Your task to perform on an android device: Open accessibility settings Image 0: 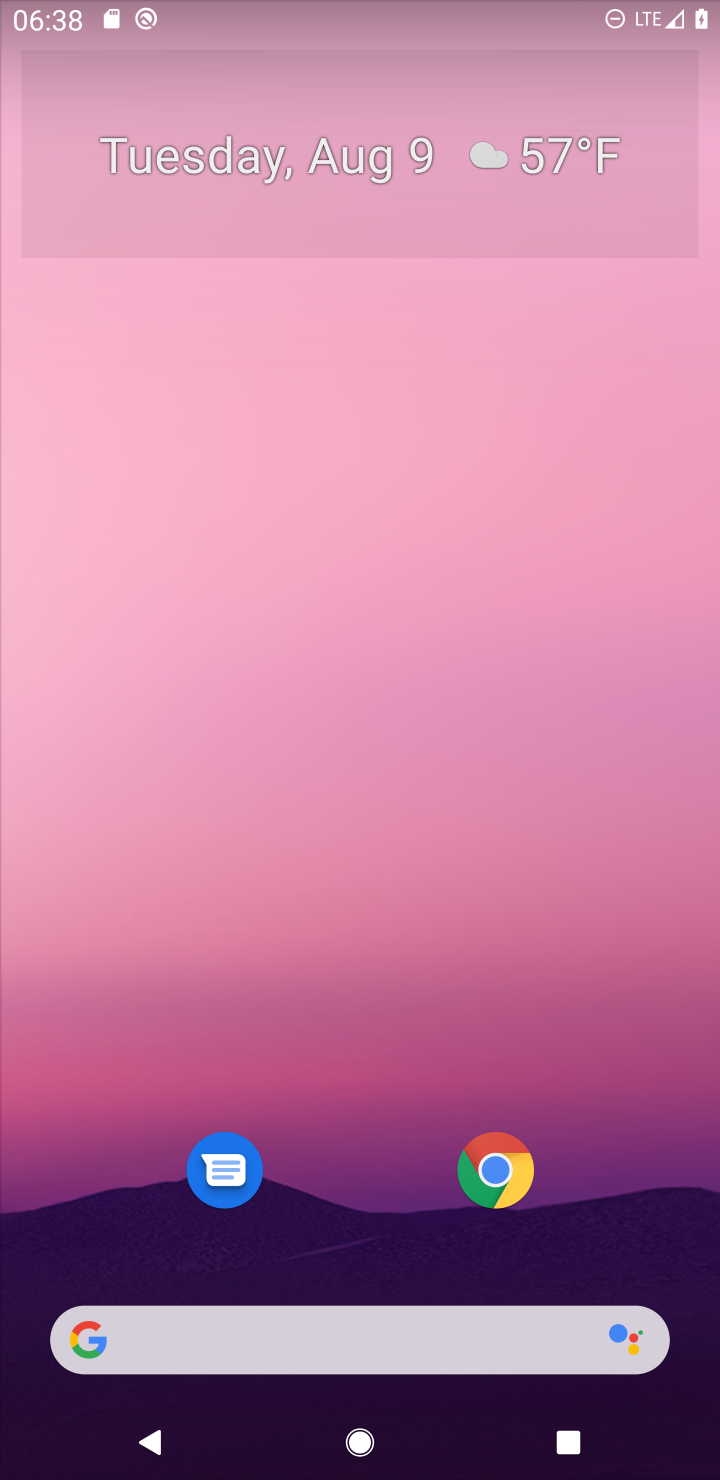
Step 0: drag from (367, 926) to (431, 17)
Your task to perform on an android device: Open accessibility settings Image 1: 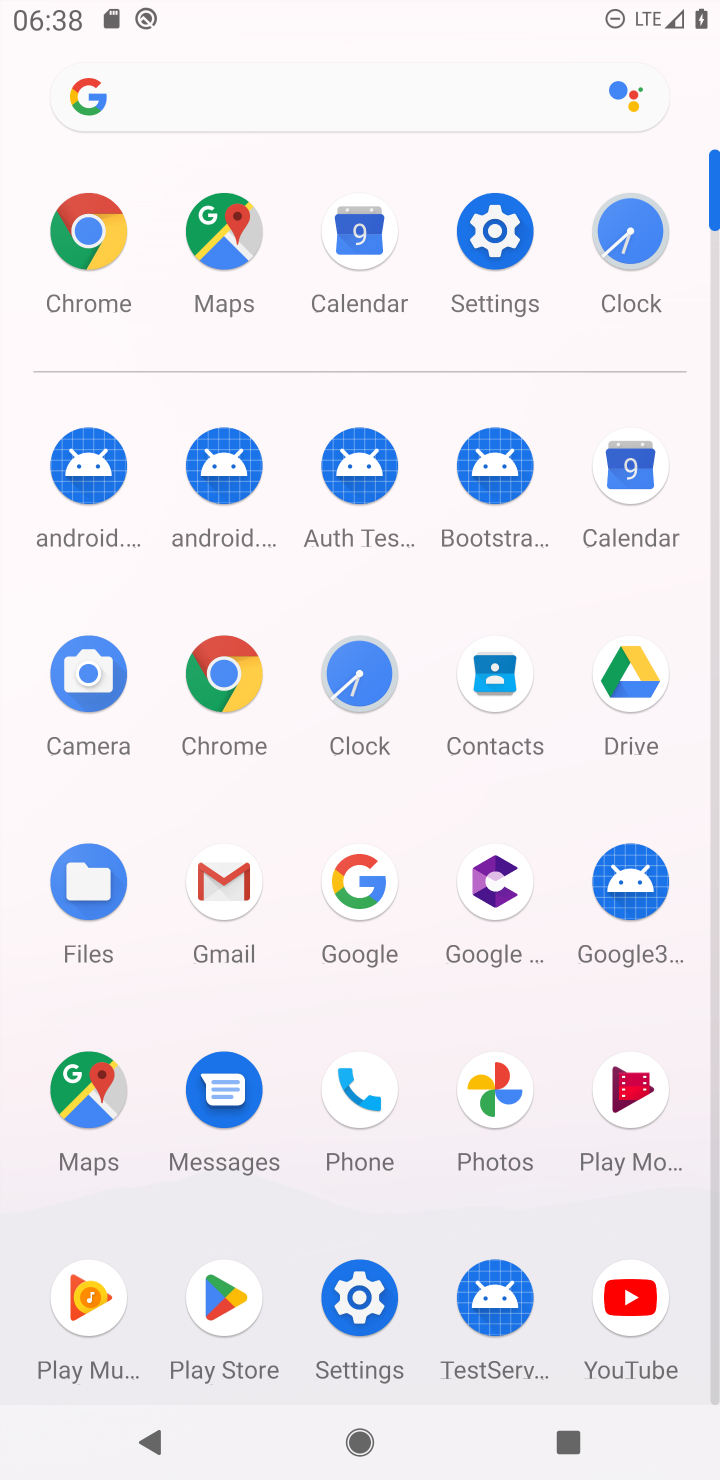
Step 1: click (489, 229)
Your task to perform on an android device: Open accessibility settings Image 2: 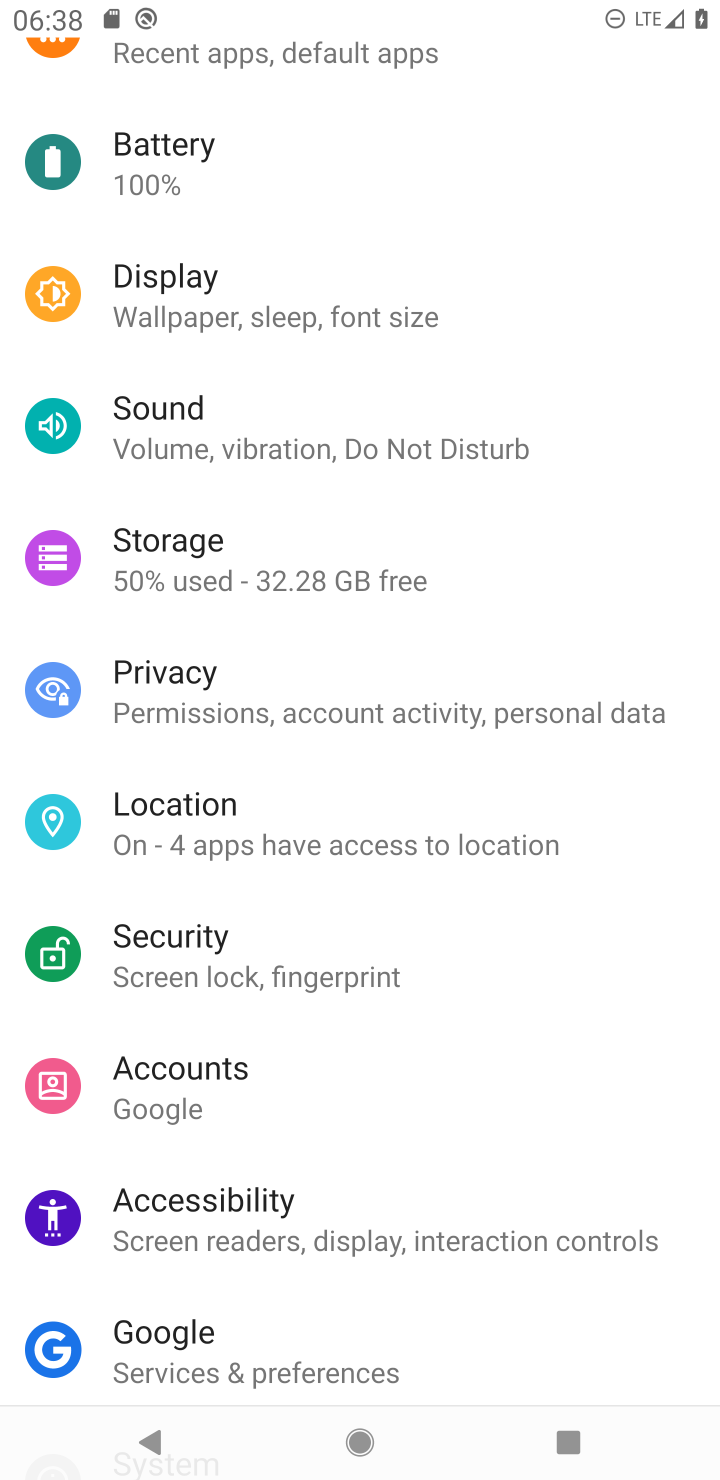
Step 2: click (202, 1198)
Your task to perform on an android device: Open accessibility settings Image 3: 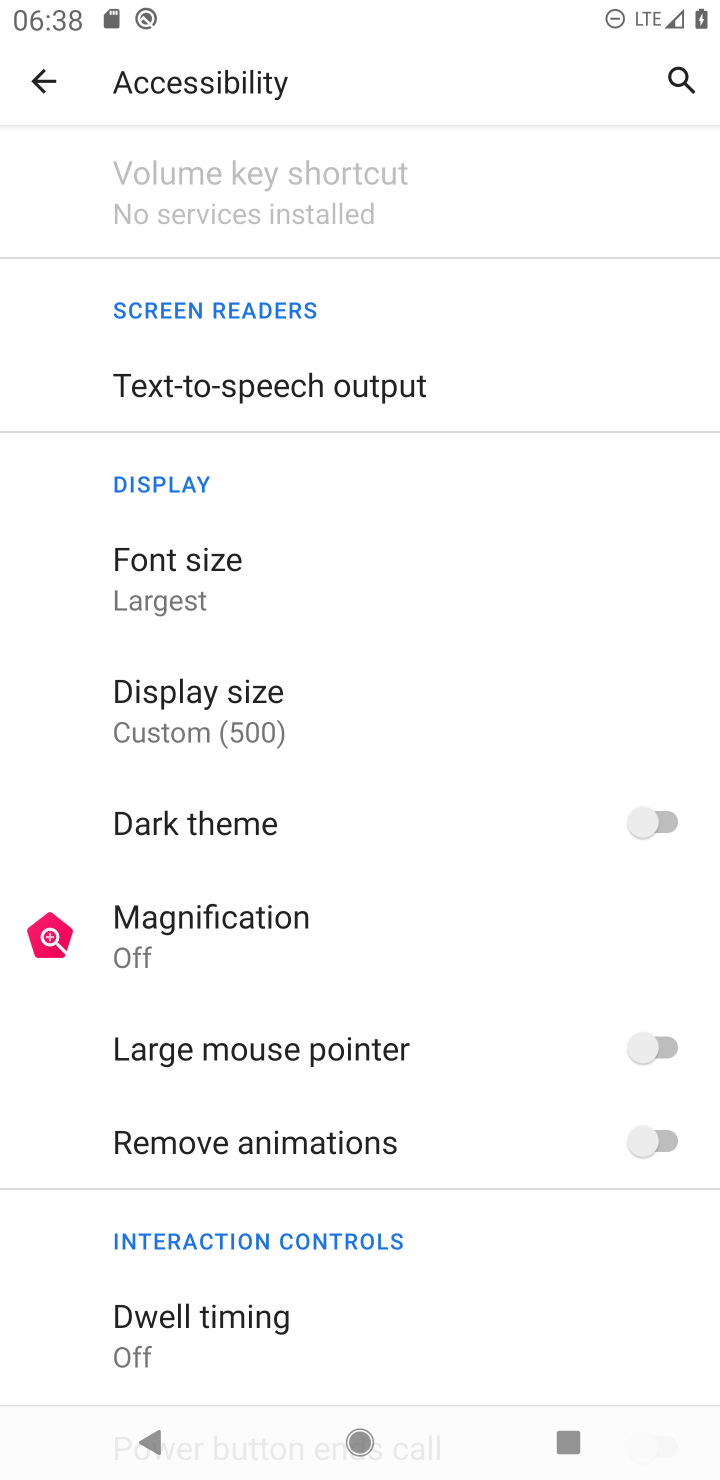
Step 3: task complete